Your task to perform on an android device: check android version Image 0: 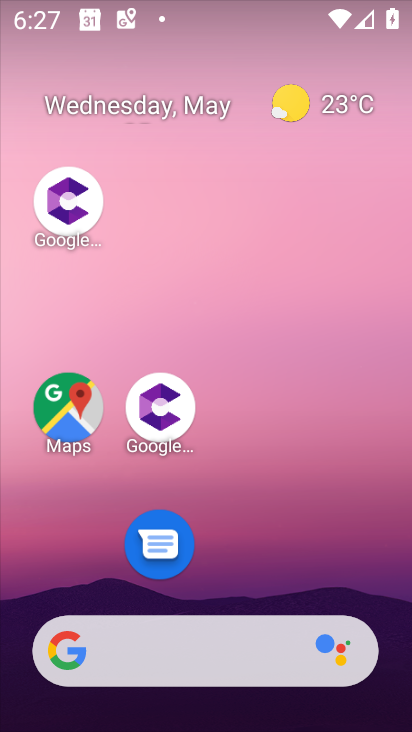
Step 0: drag from (267, 530) to (237, 109)
Your task to perform on an android device: check android version Image 1: 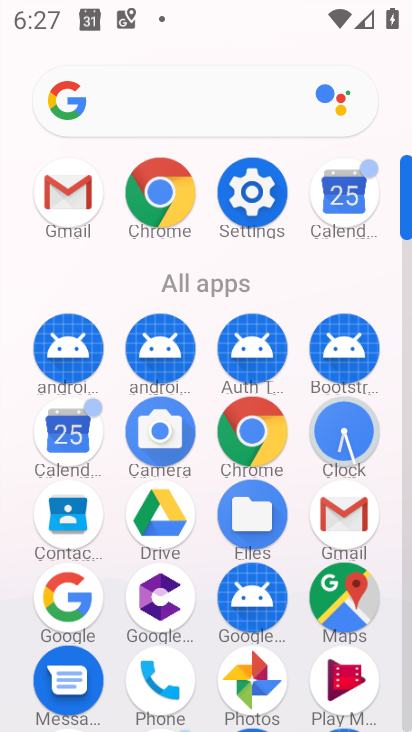
Step 1: click (254, 189)
Your task to perform on an android device: check android version Image 2: 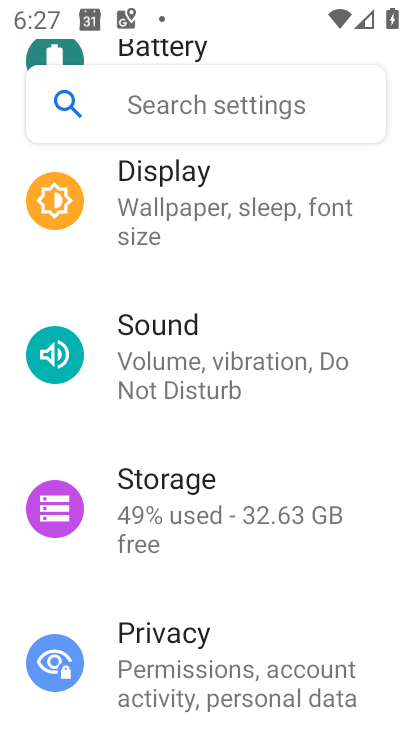
Step 2: drag from (242, 545) to (200, 246)
Your task to perform on an android device: check android version Image 3: 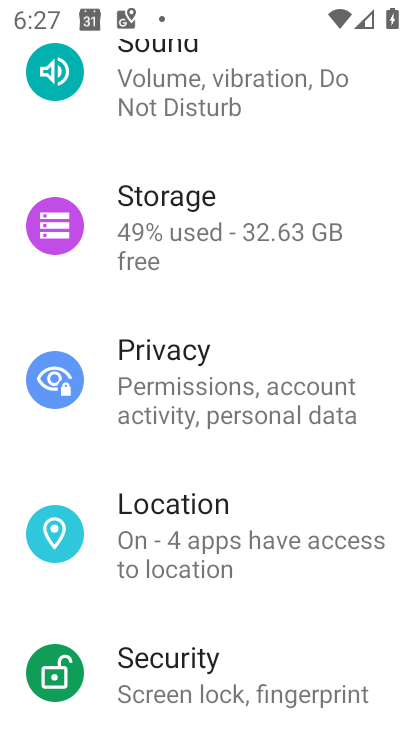
Step 3: drag from (218, 481) to (203, 199)
Your task to perform on an android device: check android version Image 4: 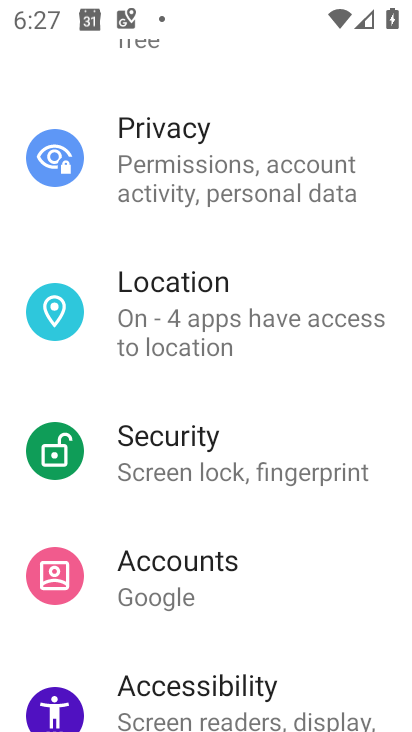
Step 4: drag from (280, 539) to (248, 199)
Your task to perform on an android device: check android version Image 5: 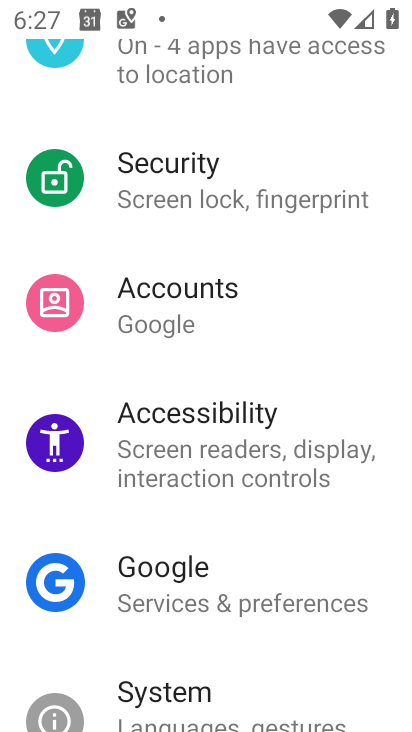
Step 5: drag from (259, 510) to (237, 146)
Your task to perform on an android device: check android version Image 6: 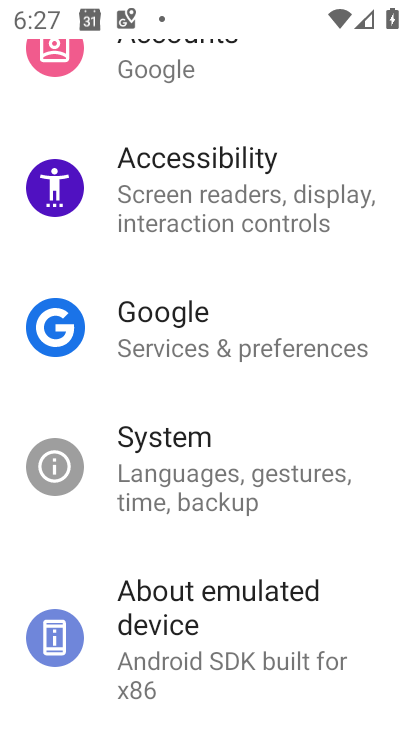
Step 6: click (173, 599)
Your task to perform on an android device: check android version Image 7: 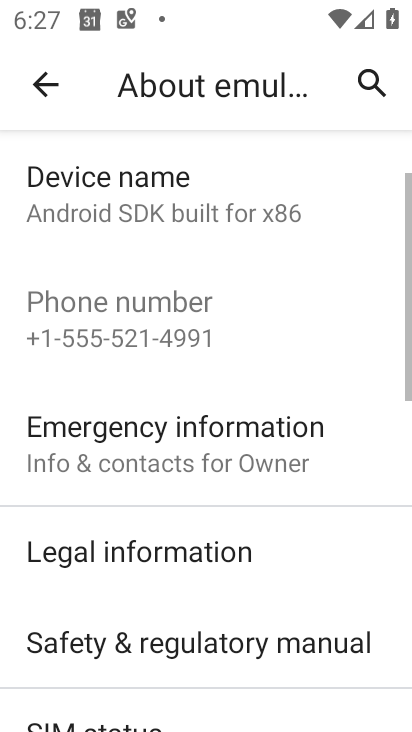
Step 7: task complete